Your task to perform on an android device: change your default location settings in chrome Image 0: 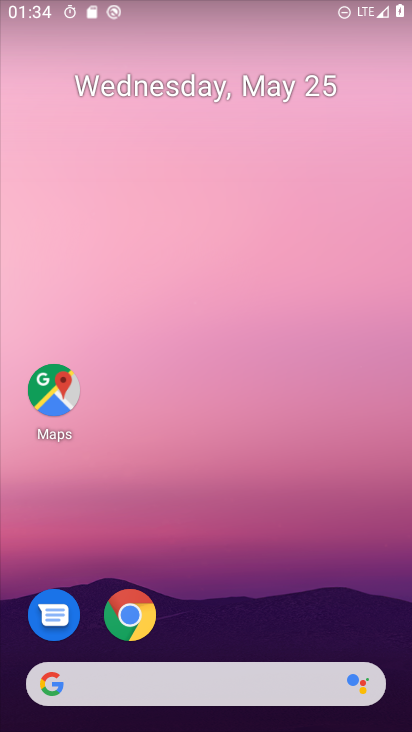
Step 0: drag from (284, 705) to (199, 17)
Your task to perform on an android device: change your default location settings in chrome Image 1: 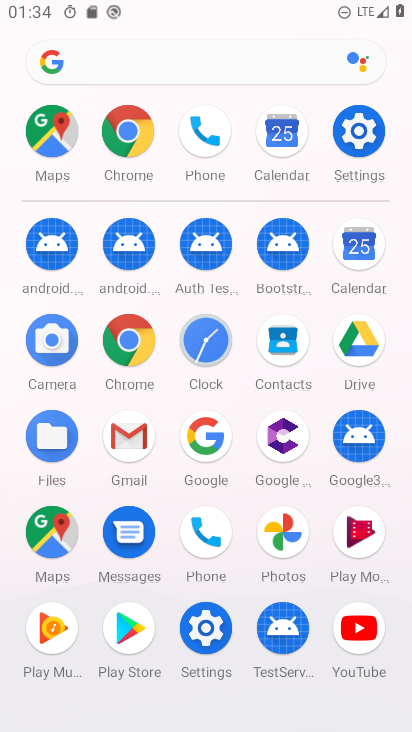
Step 1: click (142, 125)
Your task to perform on an android device: change your default location settings in chrome Image 2: 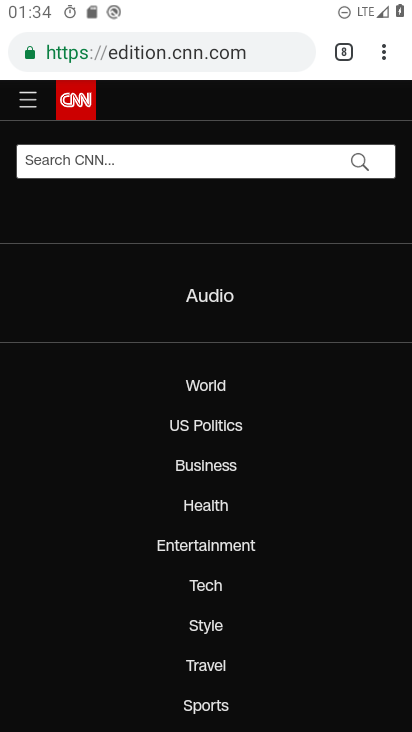
Step 2: click (384, 47)
Your task to perform on an android device: change your default location settings in chrome Image 3: 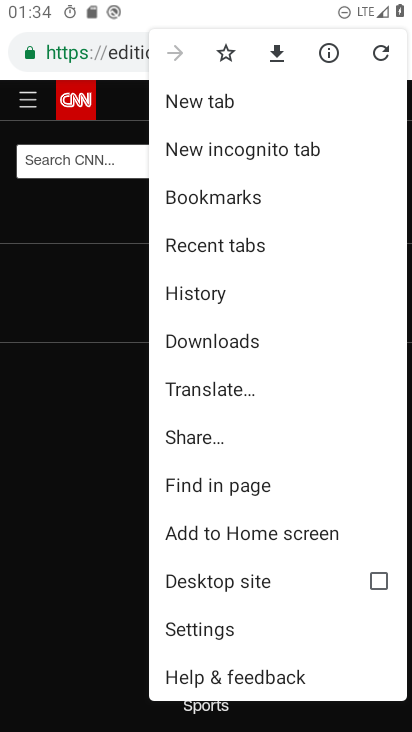
Step 3: click (240, 622)
Your task to perform on an android device: change your default location settings in chrome Image 4: 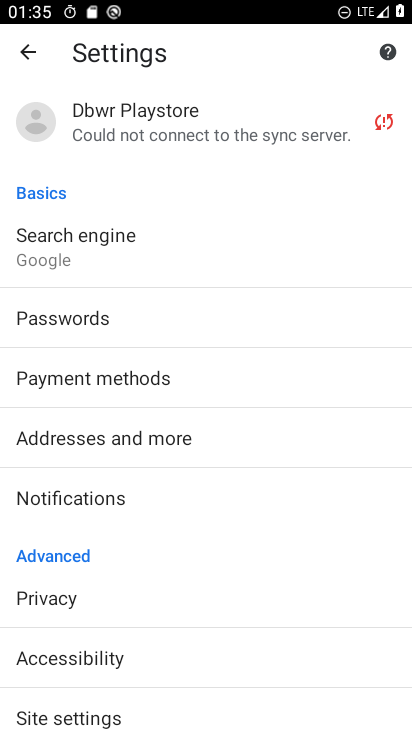
Step 4: click (115, 706)
Your task to perform on an android device: change your default location settings in chrome Image 5: 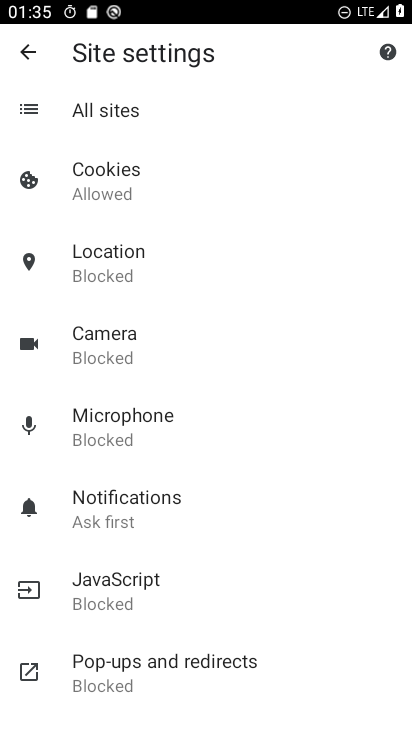
Step 5: click (129, 272)
Your task to perform on an android device: change your default location settings in chrome Image 6: 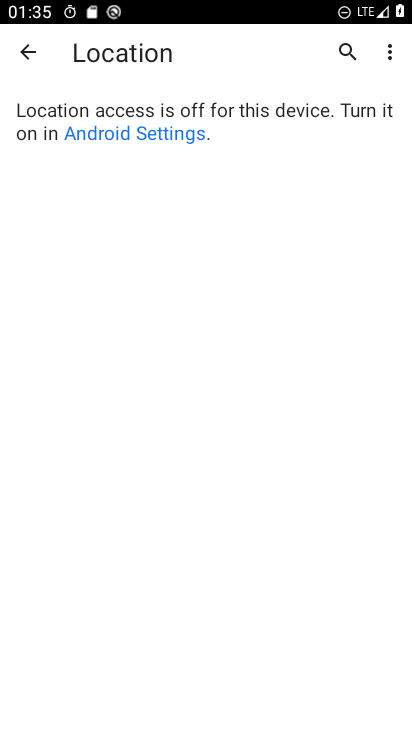
Step 6: task complete